Your task to perform on an android device: open chrome privacy settings Image 0: 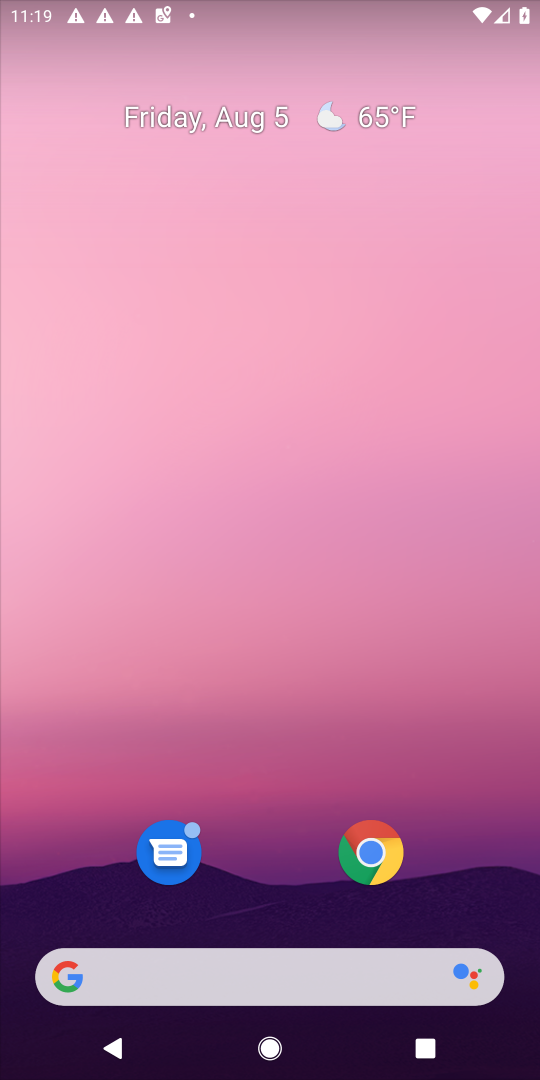
Step 0: press home button
Your task to perform on an android device: open chrome privacy settings Image 1: 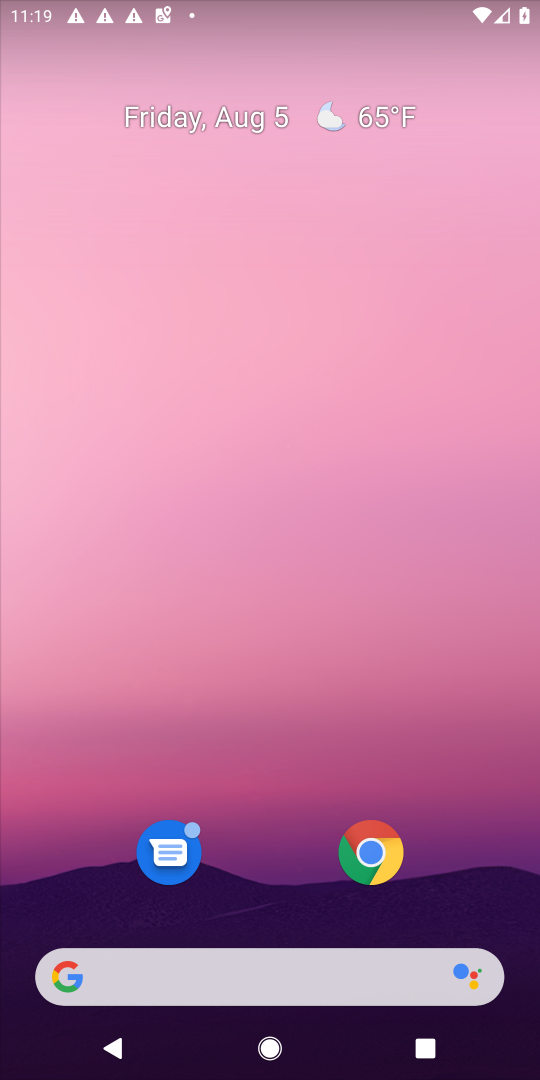
Step 1: drag from (315, 1001) to (220, 286)
Your task to perform on an android device: open chrome privacy settings Image 2: 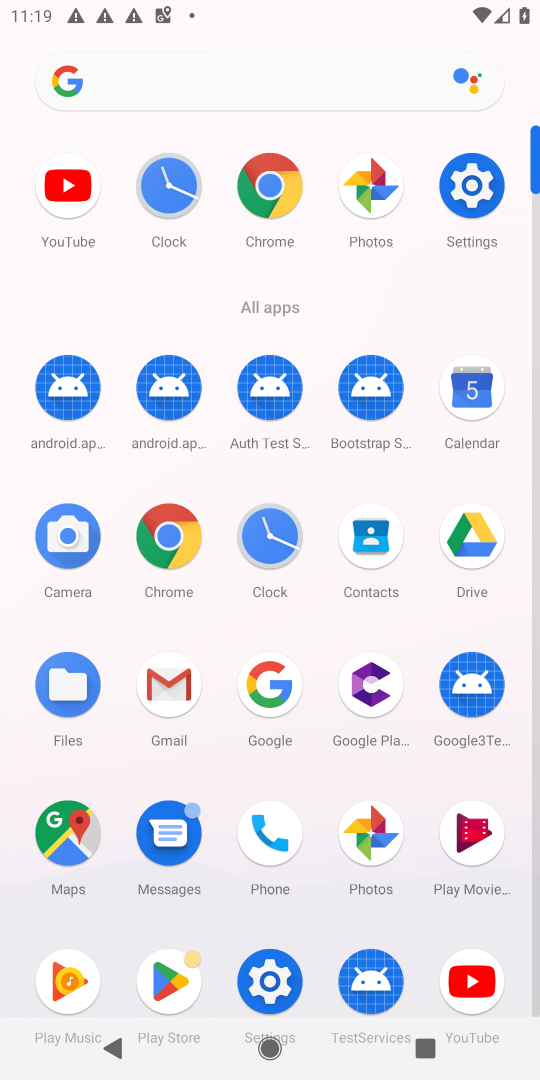
Step 2: click (164, 552)
Your task to perform on an android device: open chrome privacy settings Image 3: 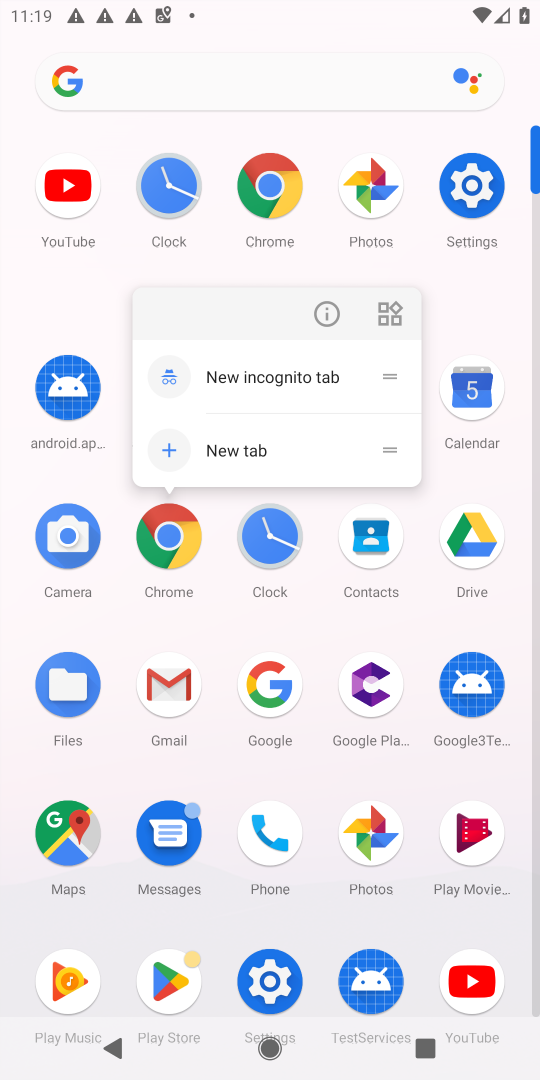
Step 3: click (176, 547)
Your task to perform on an android device: open chrome privacy settings Image 4: 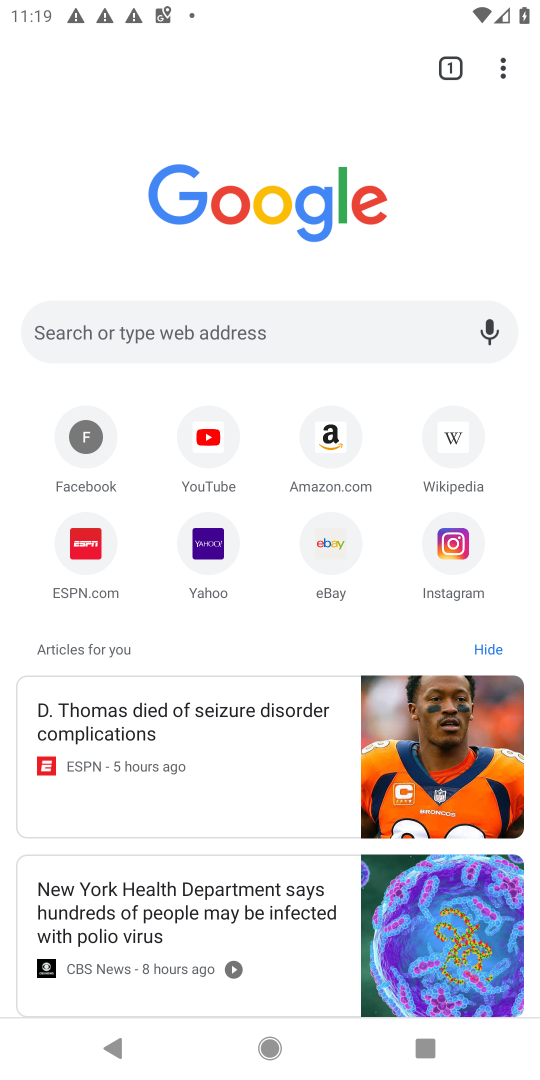
Step 4: click (496, 71)
Your task to perform on an android device: open chrome privacy settings Image 5: 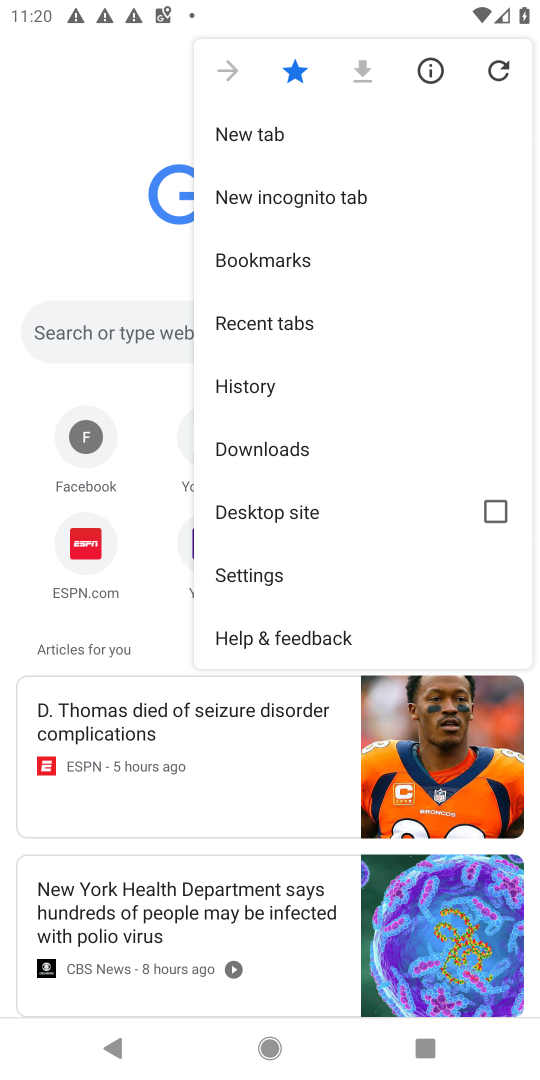
Step 5: click (265, 566)
Your task to perform on an android device: open chrome privacy settings Image 6: 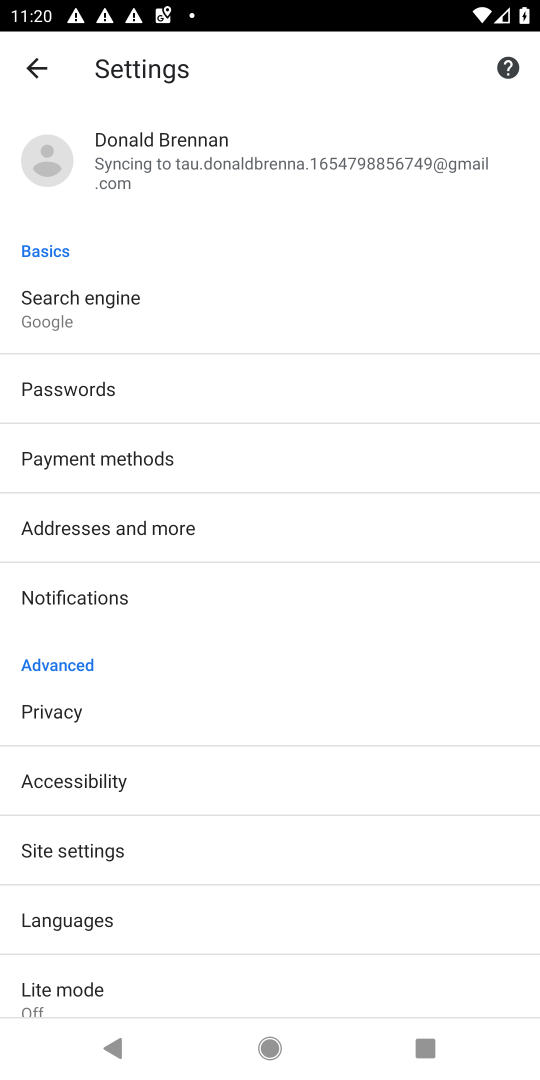
Step 6: click (105, 714)
Your task to perform on an android device: open chrome privacy settings Image 7: 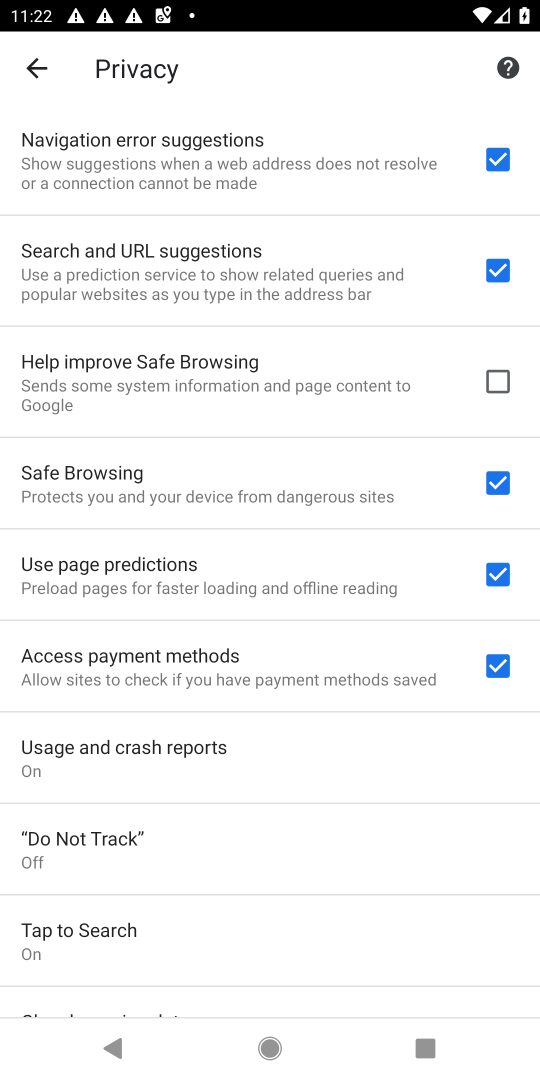
Step 7: task complete